Your task to perform on an android device: star an email in the gmail app Image 0: 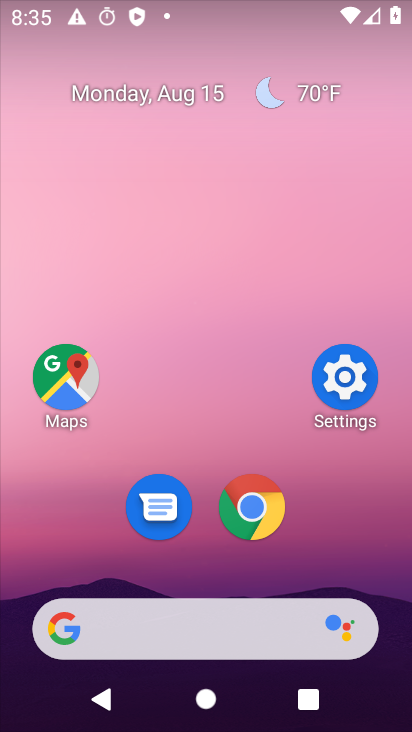
Step 0: drag from (202, 602) to (368, 47)
Your task to perform on an android device: star an email in the gmail app Image 1: 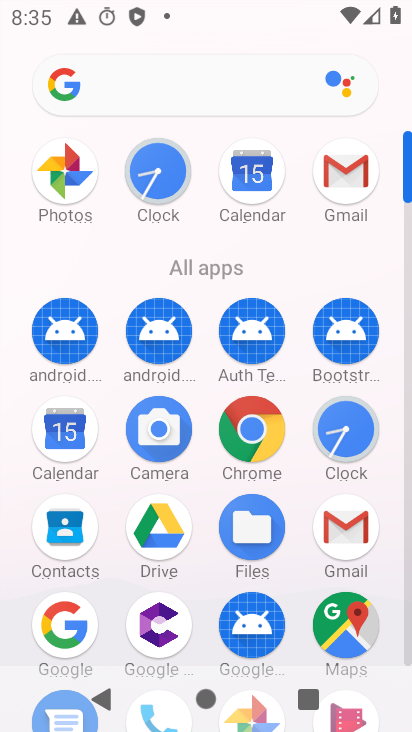
Step 1: click (348, 184)
Your task to perform on an android device: star an email in the gmail app Image 2: 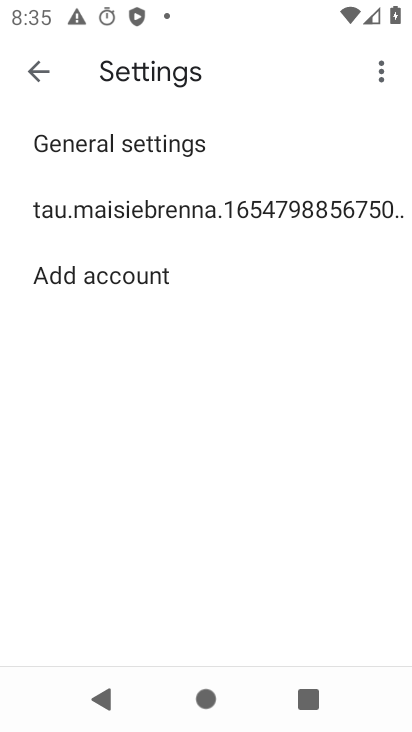
Step 2: click (26, 75)
Your task to perform on an android device: star an email in the gmail app Image 3: 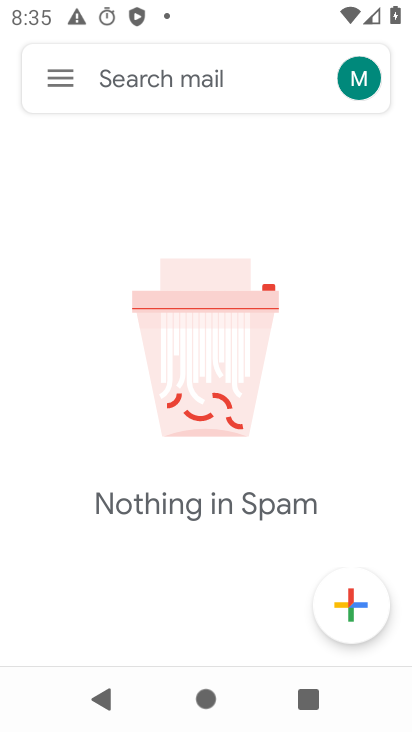
Step 3: click (41, 85)
Your task to perform on an android device: star an email in the gmail app Image 4: 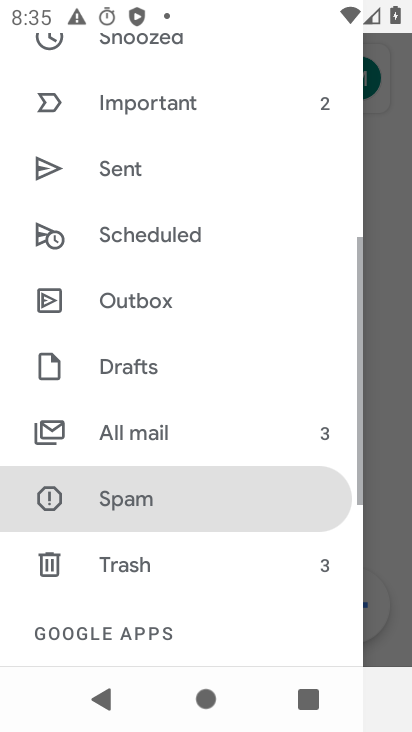
Step 4: click (195, 434)
Your task to perform on an android device: star an email in the gmail app Image 5: 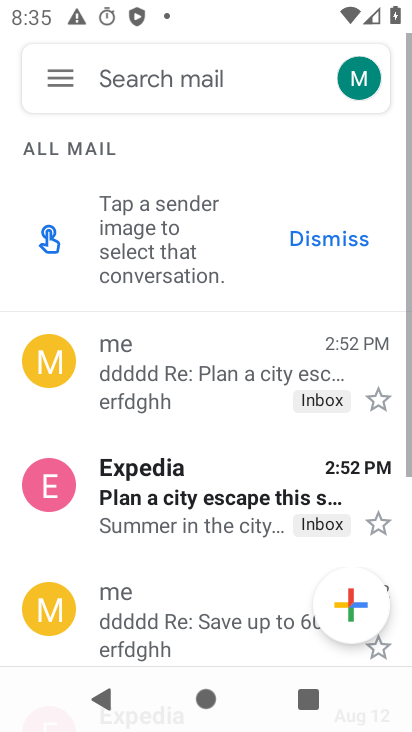
Step 5: click (64, 363)
Your task to perform on an android device: star an email in the gmail app Image 6: 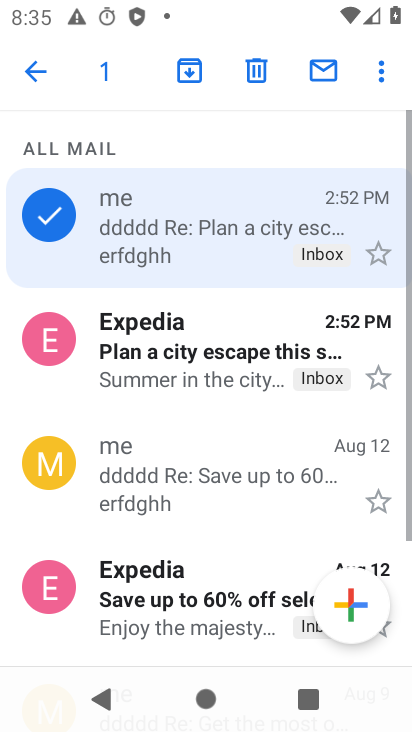
Step 6: click (385, 67)
Your task to perform on an android device: star an email in the gmail app Image 7: 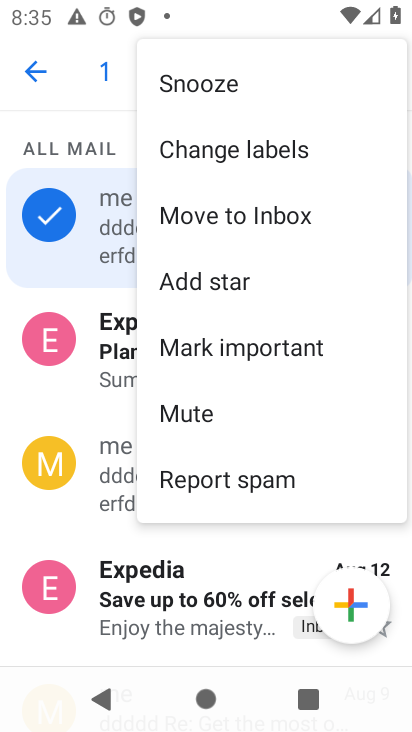
Step 7: click (237, 287)
Your task to perform on an android device: star an email in the gmail app Image 8: 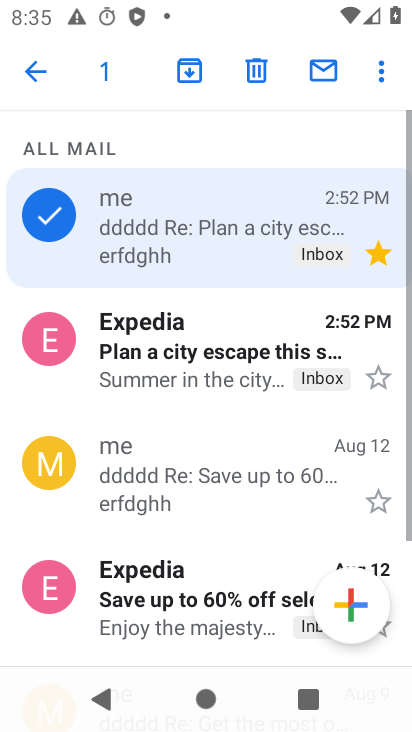
Step 8: click (65, 228)
Your task to perform on an android device: star an email in the gmail app Image 9: 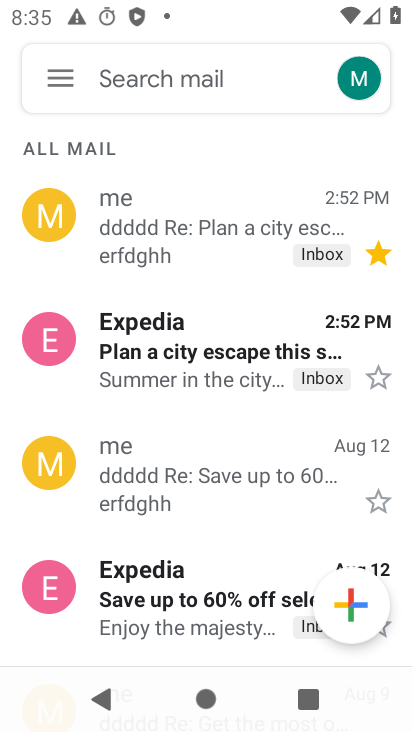
Step 9: task complete